Your task to perform on an android device: turn on bluetooth scan Image 0: 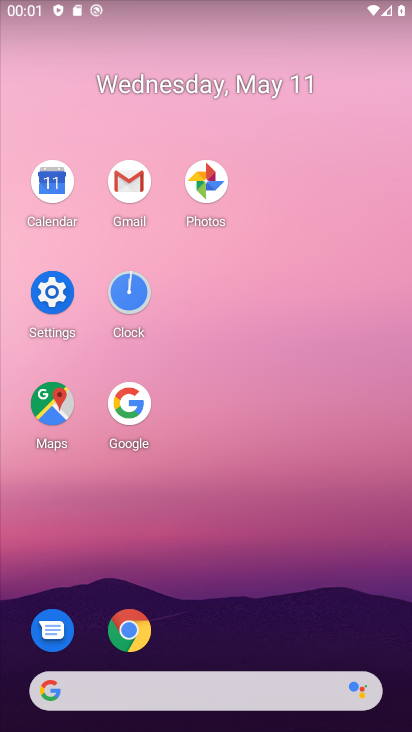
Step 0: click (50, 296)
Your task to perform on an android device: turn on bluetooth scan Image 1: 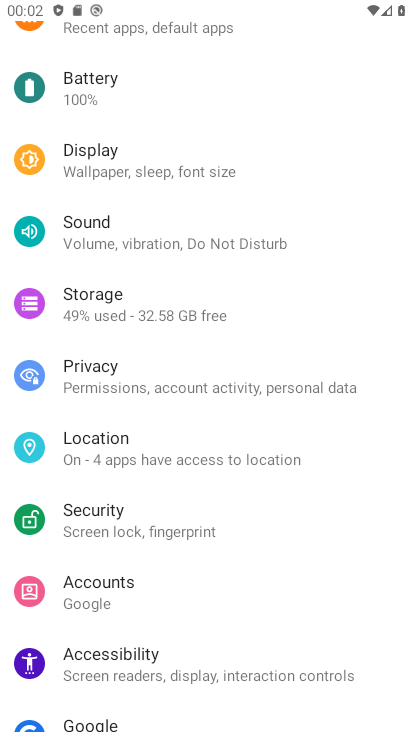
Step 1: click (186, 440)
Your task to perform on an android device: turn on bluetooth scan Image 2: 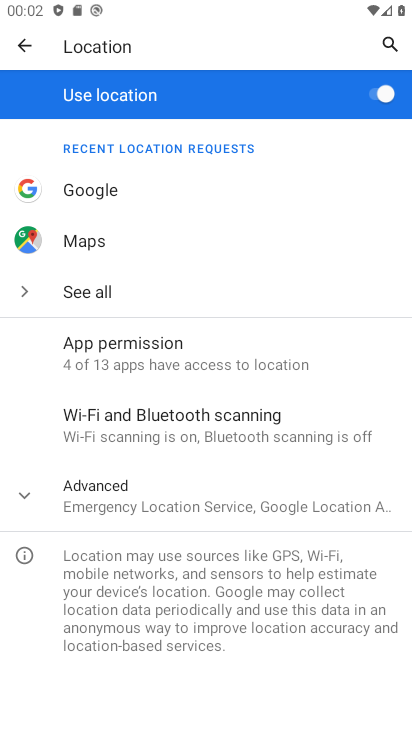
Step 2: click (205, 420)
Your task to perform on an android device: turn on bluetooth scan Image 3: 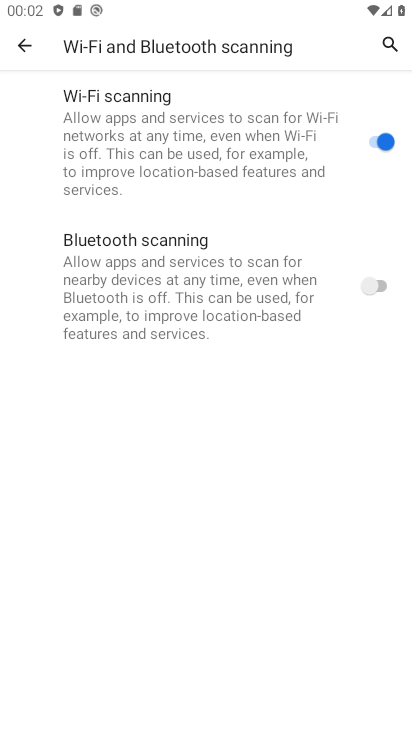
Step 3: click (384, 287)
Your task to perform on an android device: turn on bluetooth scan Image 4: 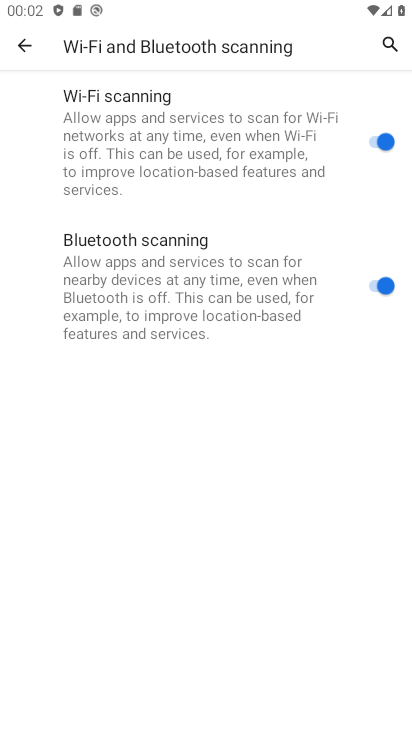
Step 4: task complete